Your task to perform on an android device: Go to Yahoo.com Image 0: 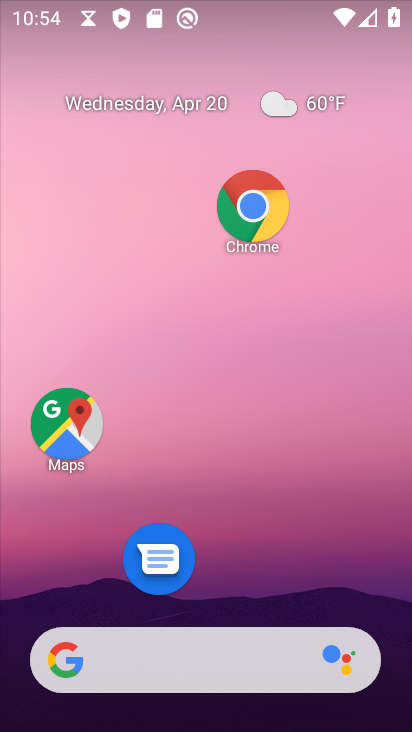
Step 0: drag from (256, 553) to (268, 167)
Your task to perform on an android device: Go to Yahoo.com Image 1: 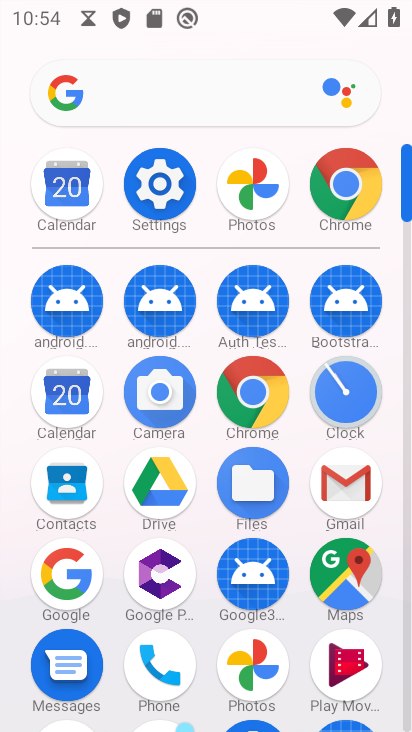
Step 1: drag from (198, 659) to (210, 245)
Your task to perform on an android device: Go to Yahoo.com Image 2: 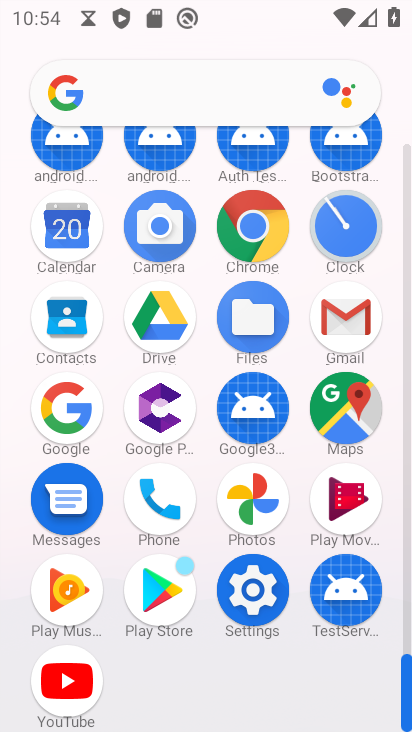
Step 2: click (250, 226)
Your task to perform on an android device: Go to Yahoo.com Image 3: 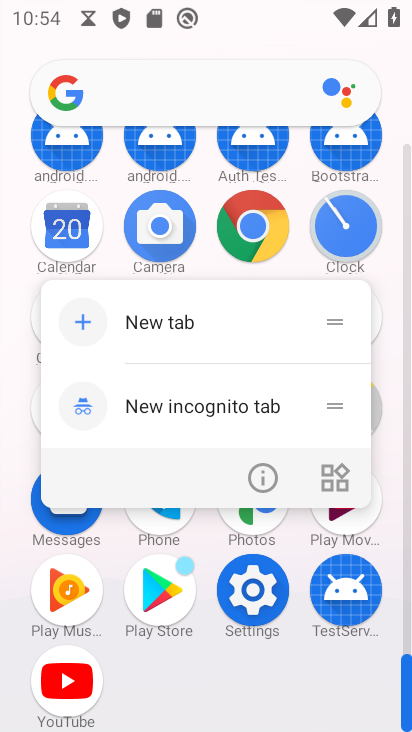
Step 3: click (265, 227)
Your task to perform on an android device: Go to Yahoo.com Image 4: 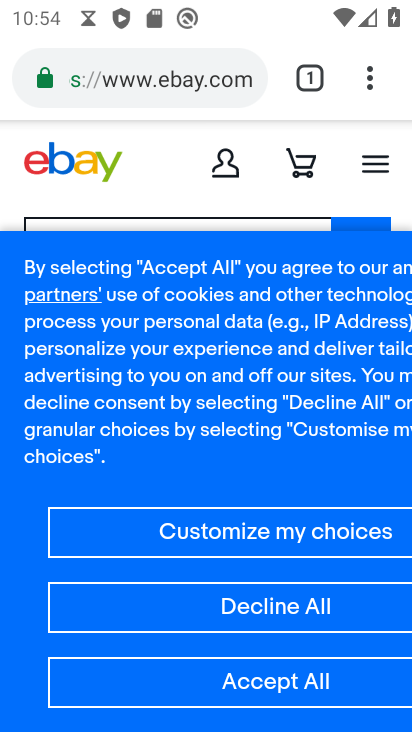
Step 4: click (363, 70)
Your task to perform on an android device: Go to Yahoo.com Image 5: 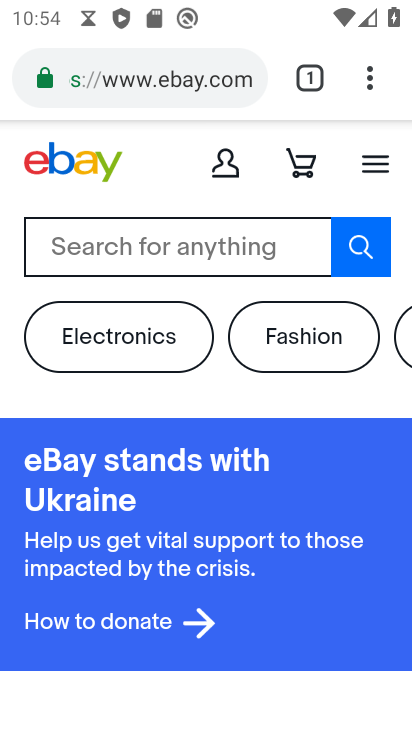
Step 5: click (350, 73)
Your task to perform on an android device: Go to Yahoo.com Image 6: 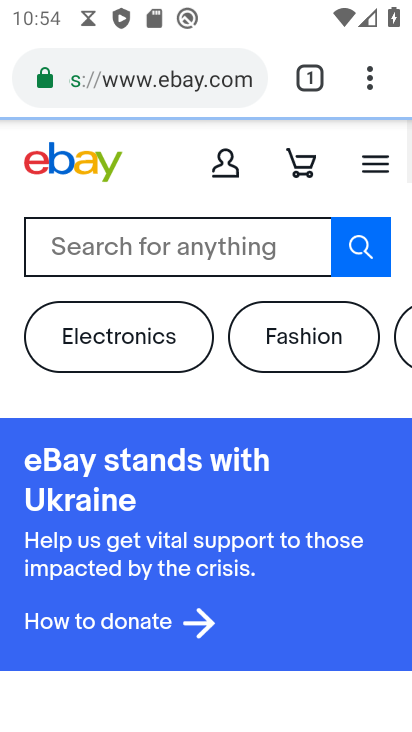
Step 6: click (376, 74)
Your task to perform on an android device: Go to Yahoo.com Image 7: 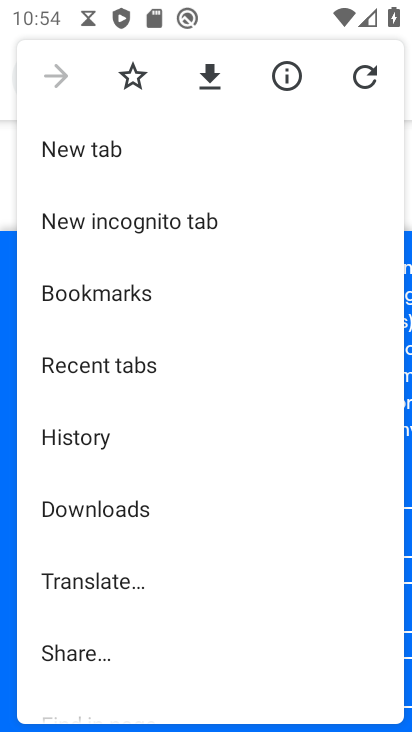
Step 7: press back button
Your task to perform on an android device: Go to Yahoo.com Image 8: 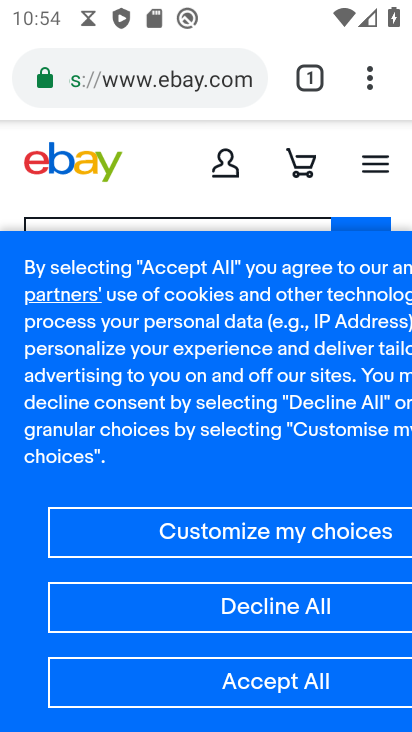
Step 8: press back button
Your task to perform on an android device: Go to Yahoo.com Image 9: 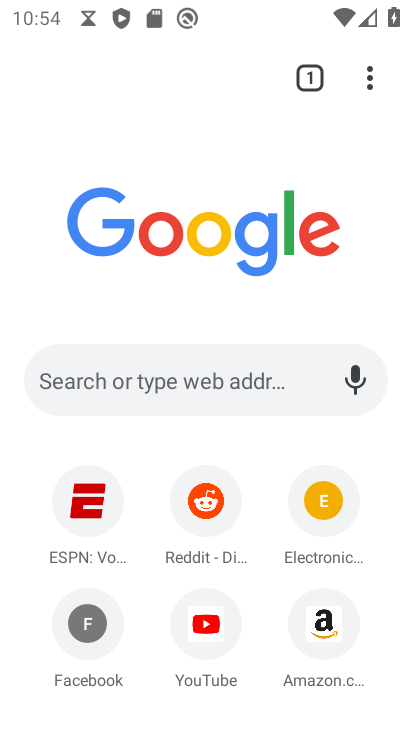
Step 9: drag from (271, 604) to (286, 161)
Your task to perform on an android device: Go to Yahoo.com Image 10: 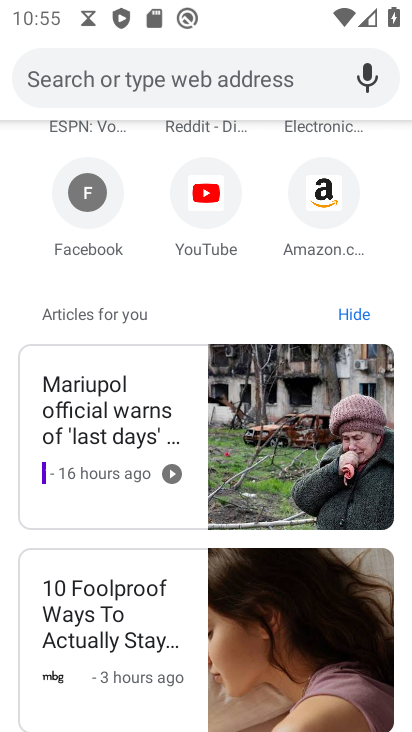
Step 10: drag from (247, 195) to (251, 726)
Your task to perform on an android device: Go to Yahoo.com Image 11: 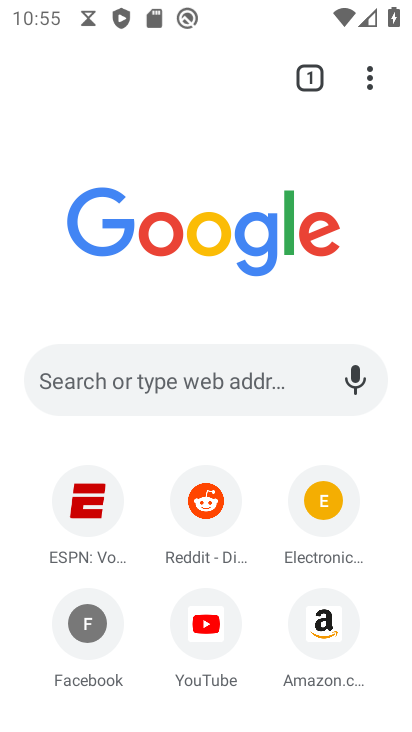
Step 11: click (197, 371)
Your task to perform on an android device: Go to Yahoo.com Image 12: 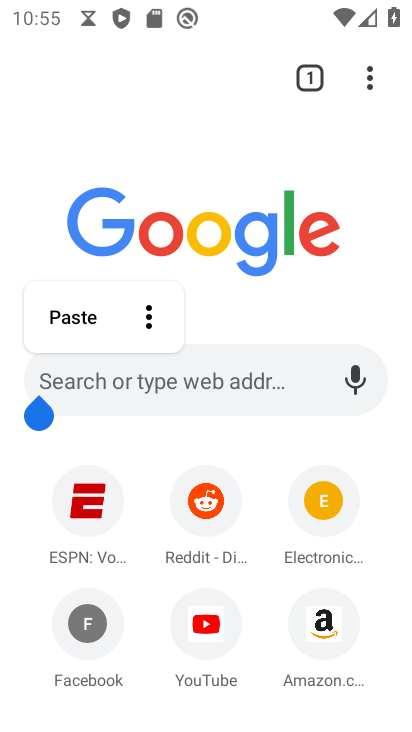
Step 12: click (197, 371)
Your task to perform on an android device: Go to Yahoo.com Image 13: 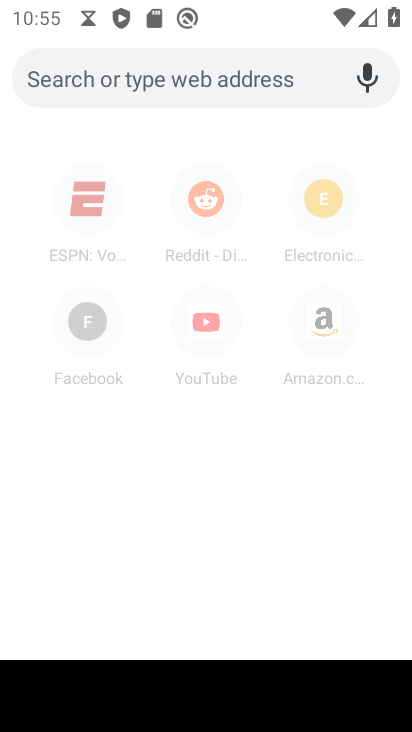
Step 13: type "yahoo.com"
Your task to perform on an android device: Go to Yahoo.com Image 14: 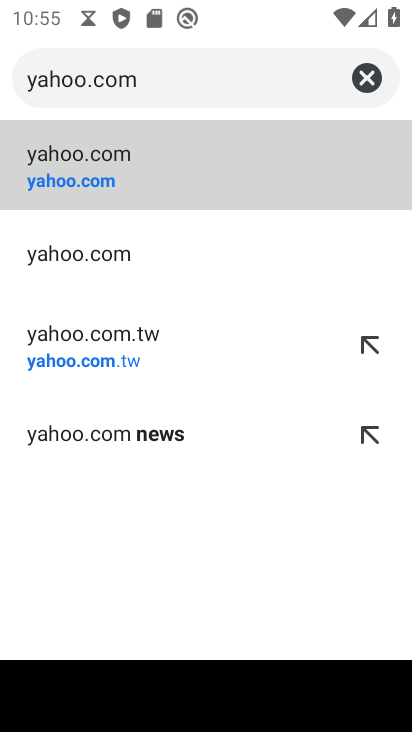
Step 14: click (131, 176)
Your task to perform on an android device: Go to Yahoo.com Image 15: 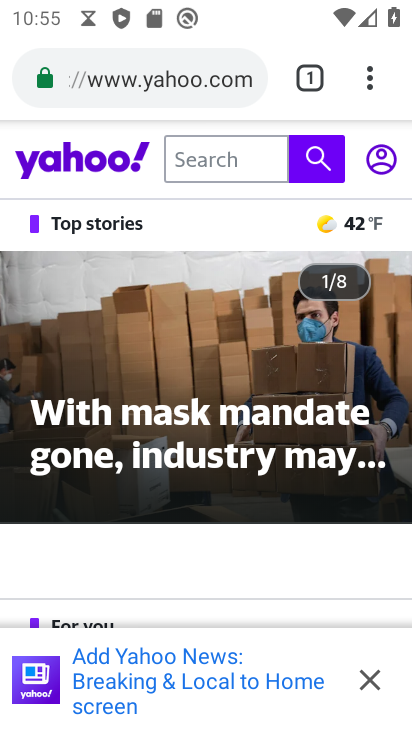
Step 15: task complete